Your task to perform on an android device: open app "Google Find My Device" (install if not already installed) Image 0: 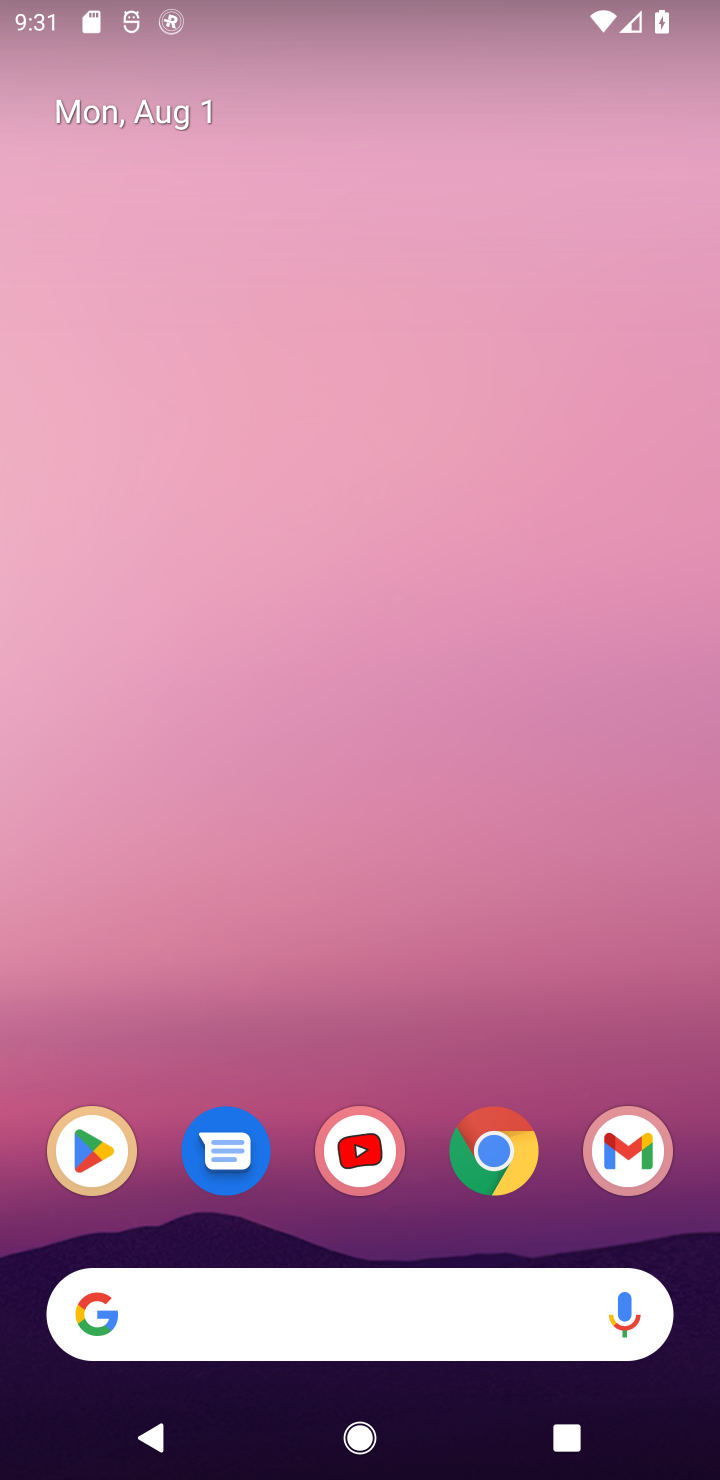
Step 0: click (108, 1122)
Your task to perform on an android device: open app "Google Find My Device" (install if not already installed) Image 1: 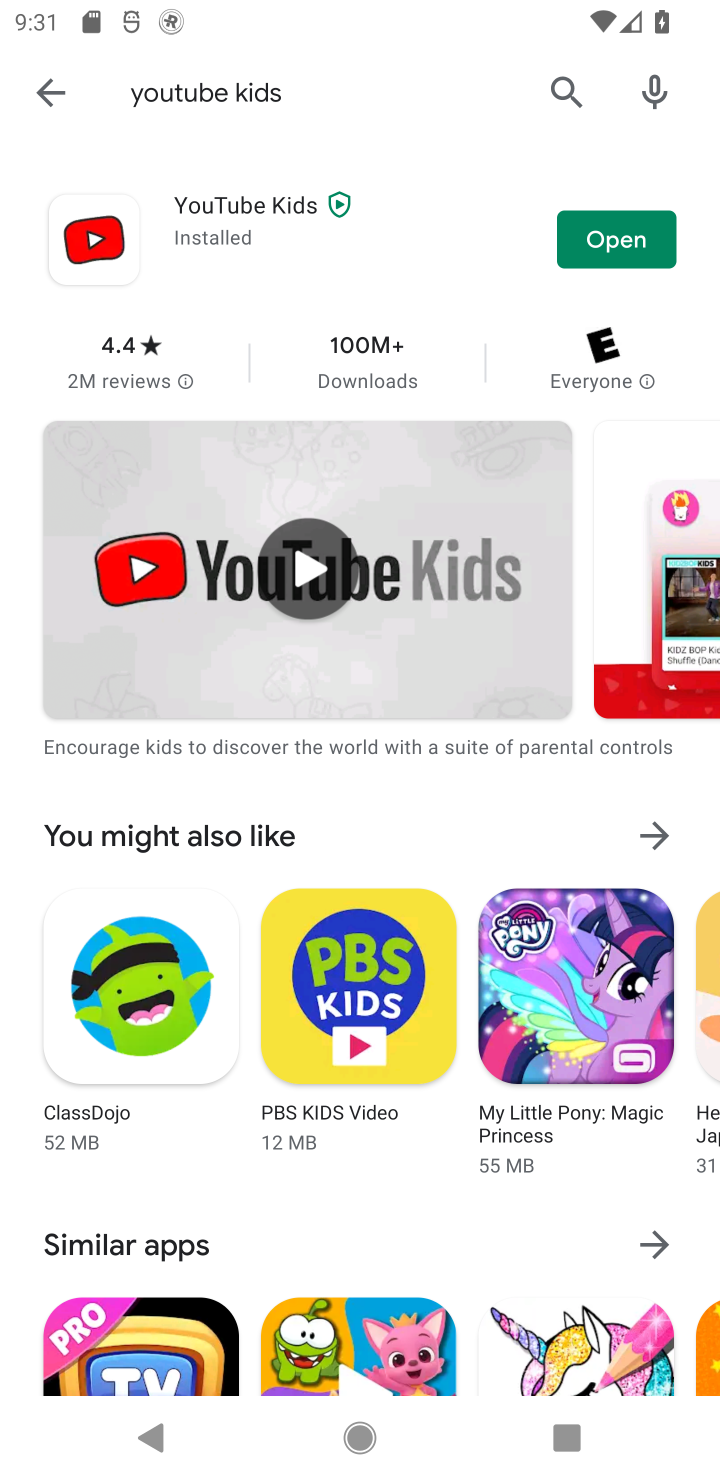
Step 1: click (555, 81)
Your task to perform on an android device: open app "Google Find My Device" (install if not already installed) Image 2: 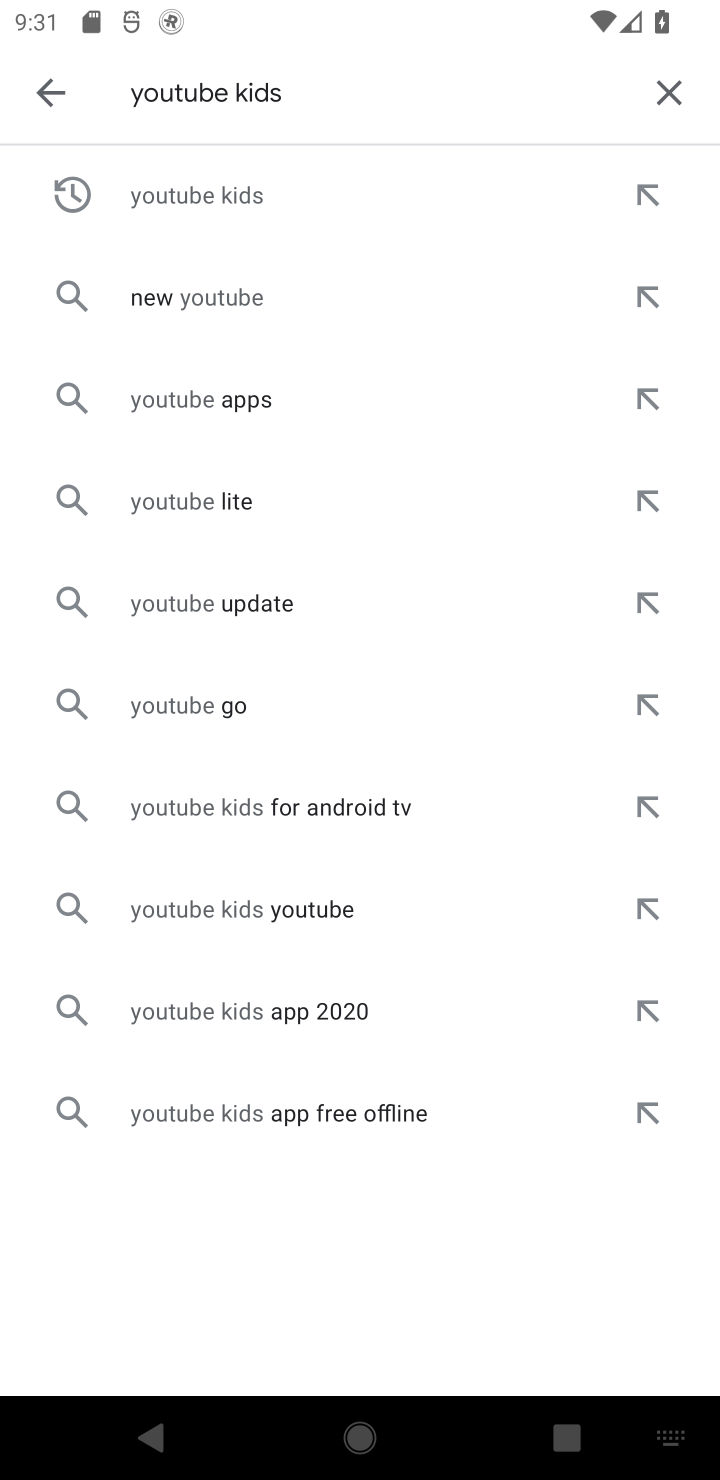
Step 2: click (672, 94)
Your task to perform on an android device: open app "Google Find My Device" (install if not already installed) Image 3: 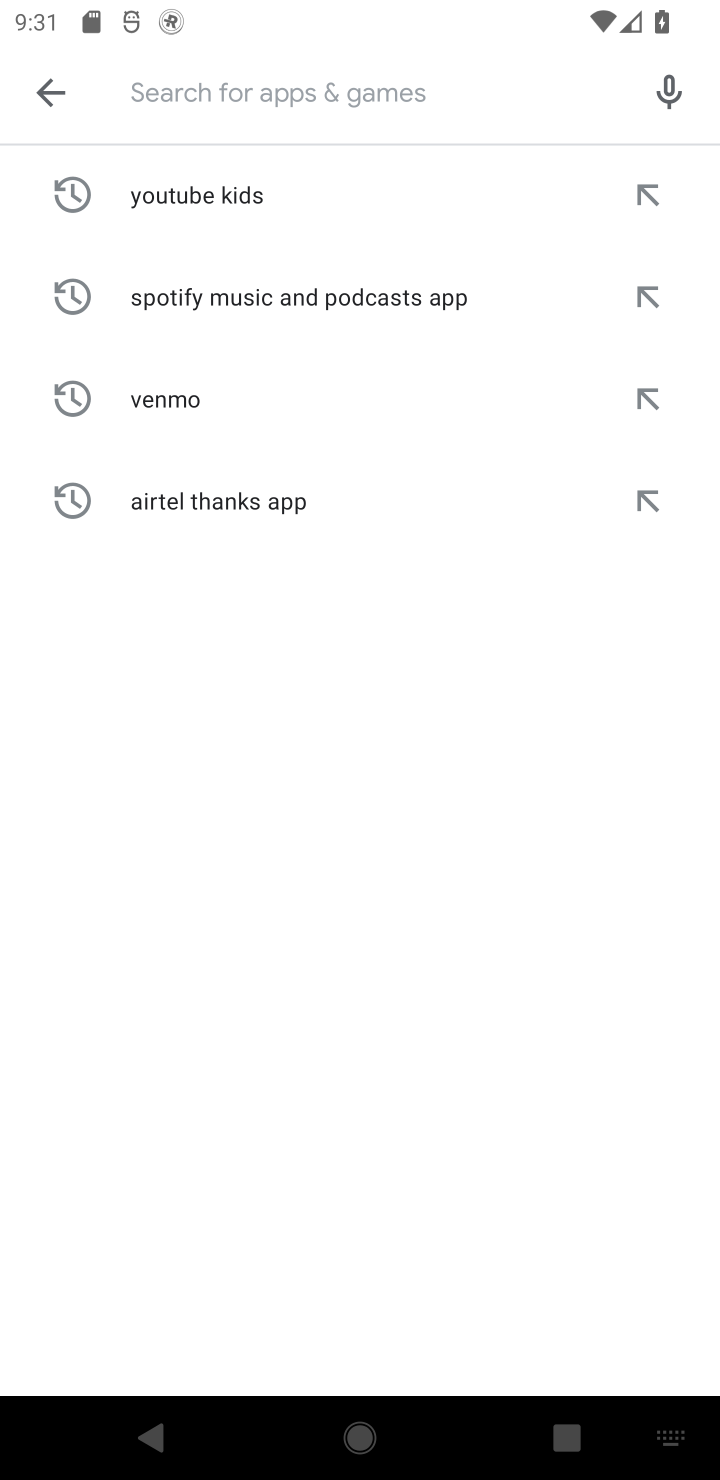
Step 3: type "Google Find My Devic"
Your task to perform on an android device: open app "Google Find My Device" (install if not already installed) Image 4: 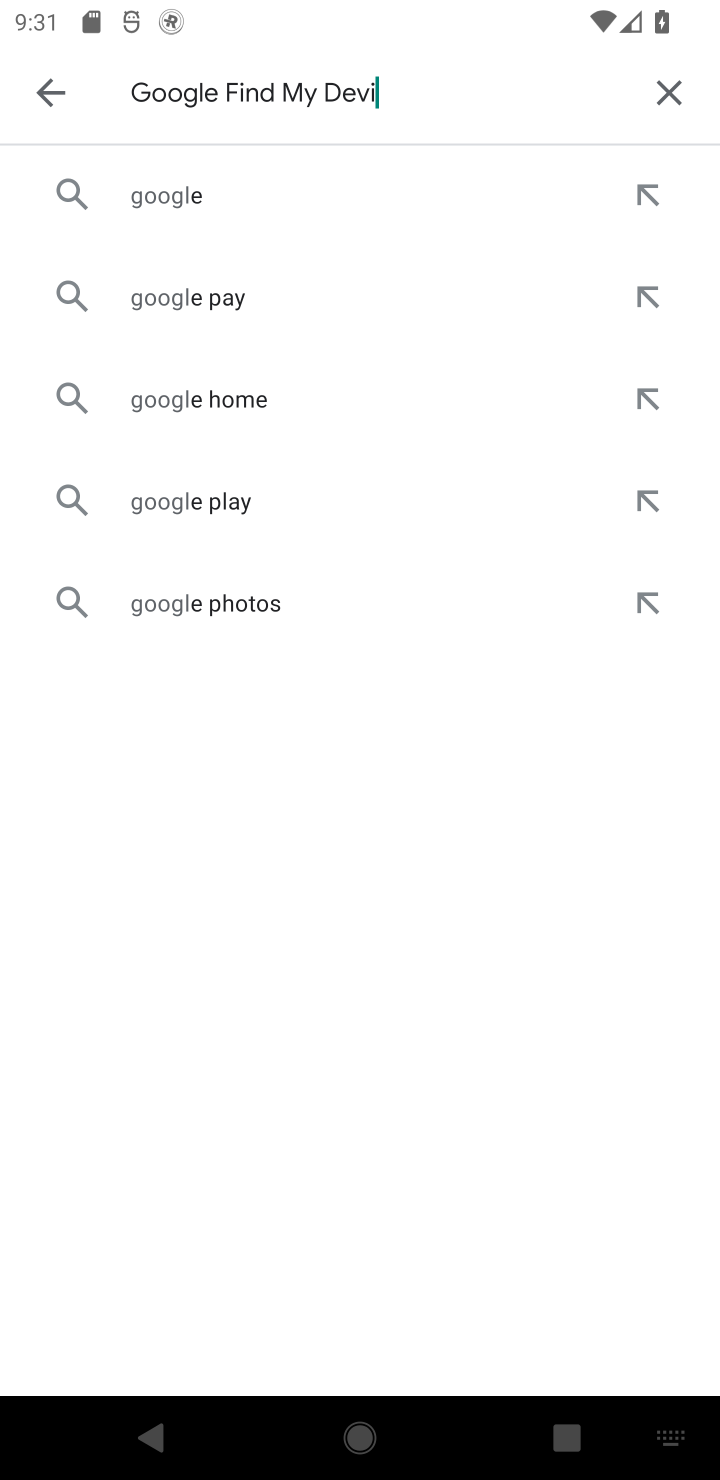
Step 4: type ""
Your task to perform on an android device: open app "Google Find My Device" (install if not already installed) Image 5: 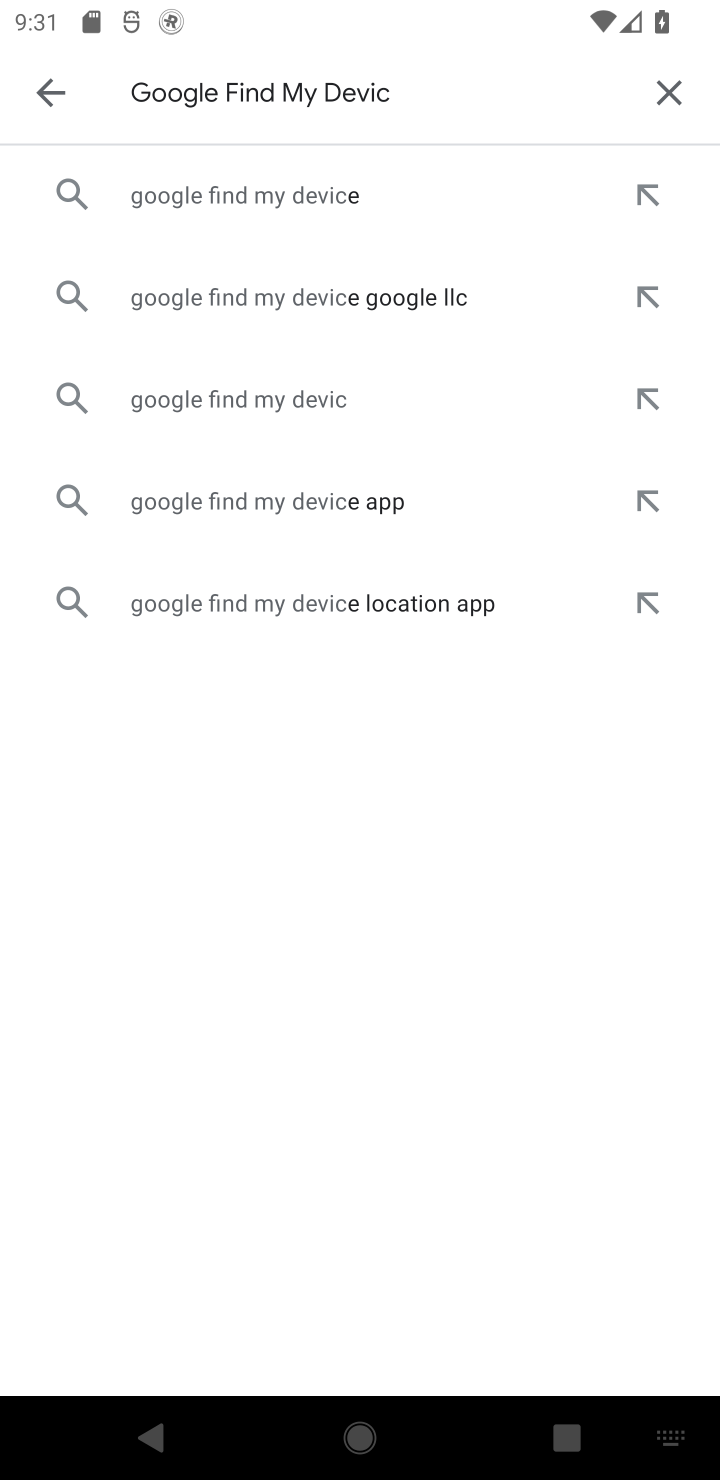
Step 5: click (367, 193)
Your task to perform on an android device: open app "Google Find My Device" (install if not already installed) Image 6: 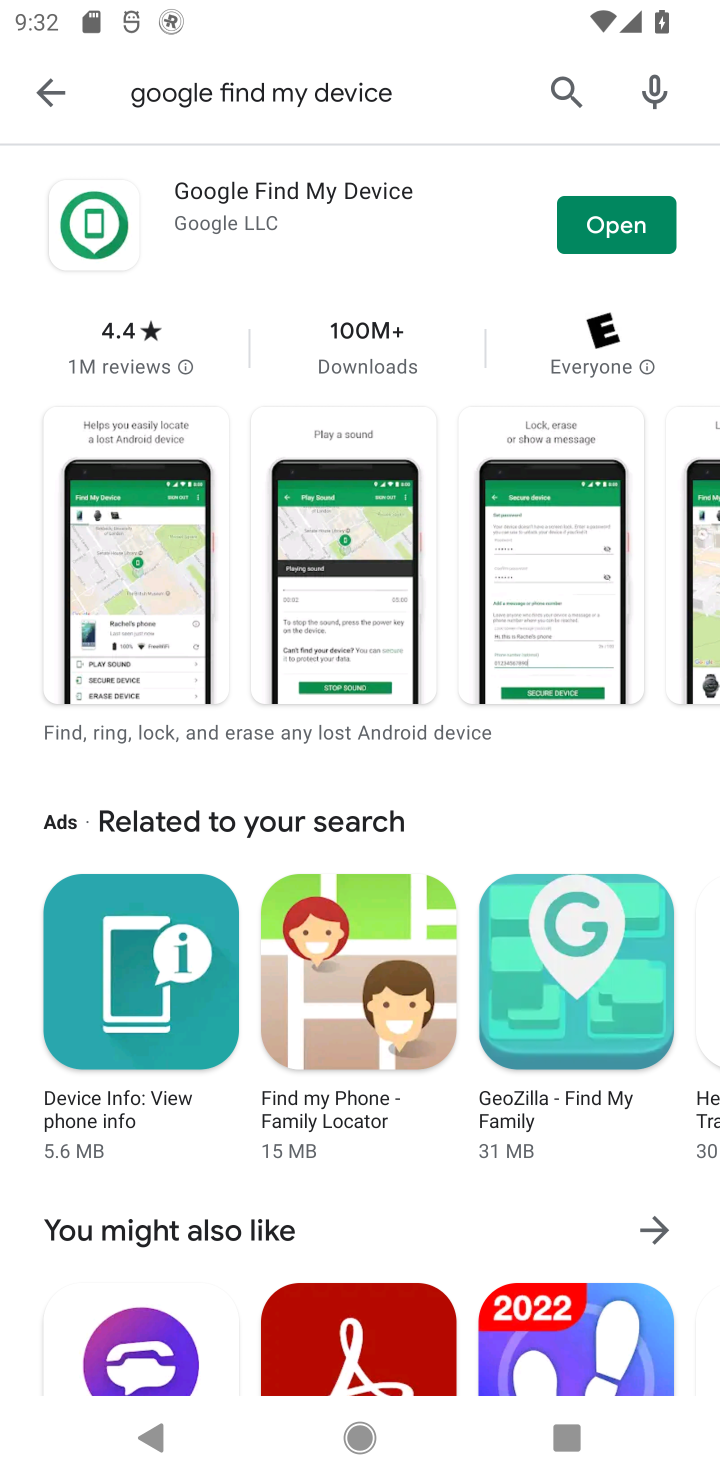
Step 6: click (596, 213)
Your task to perform on an android device: open app "Google Find My Device" (install if not already installed) Image 7: 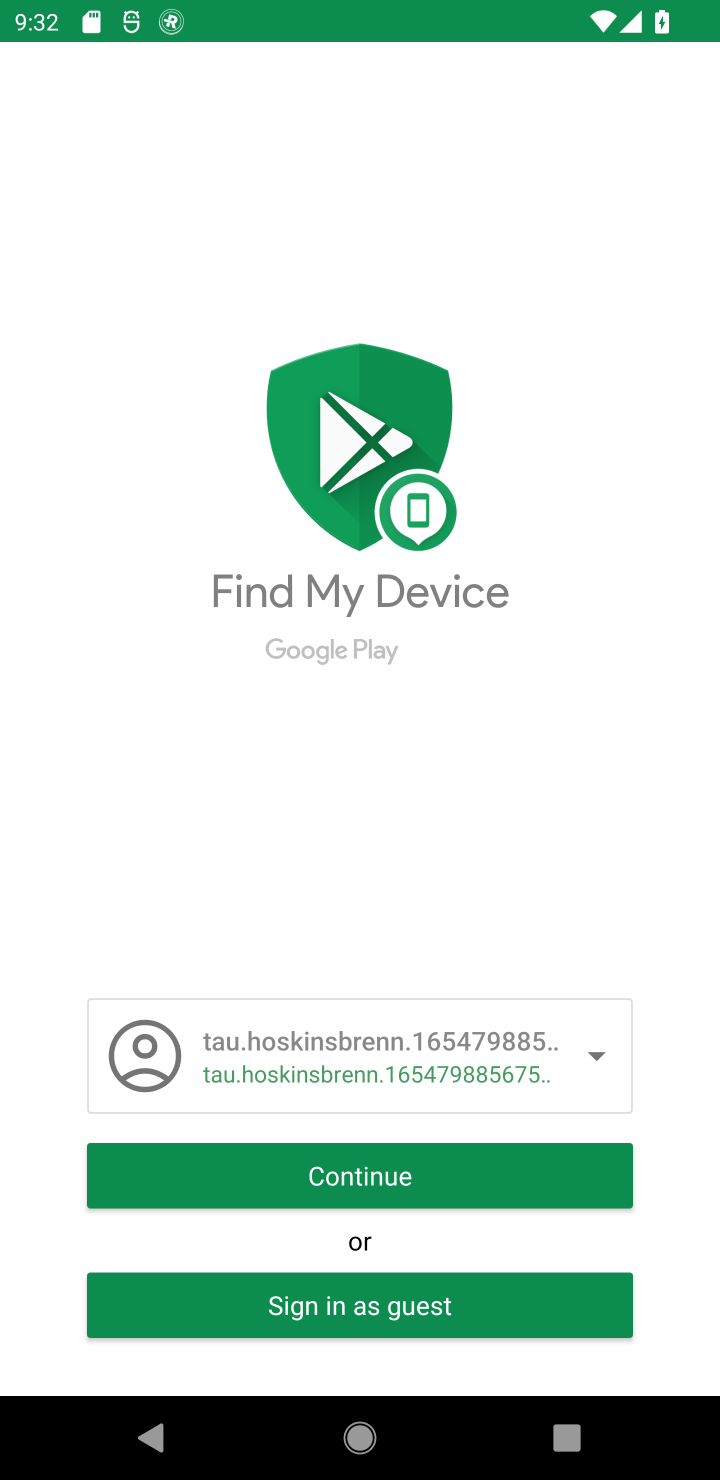
Step 7: task complete